Your task to perform on an android device: Open Google Chrome Image 0: 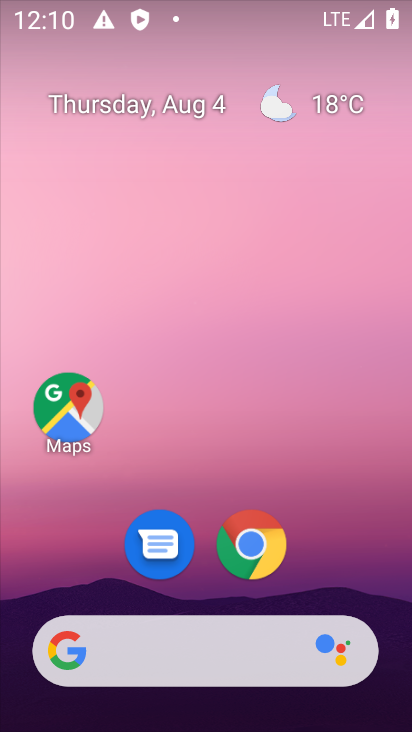
Step 0: click (250, 544)
Your task to perform on an android device: Open Google Chrome Image 1: 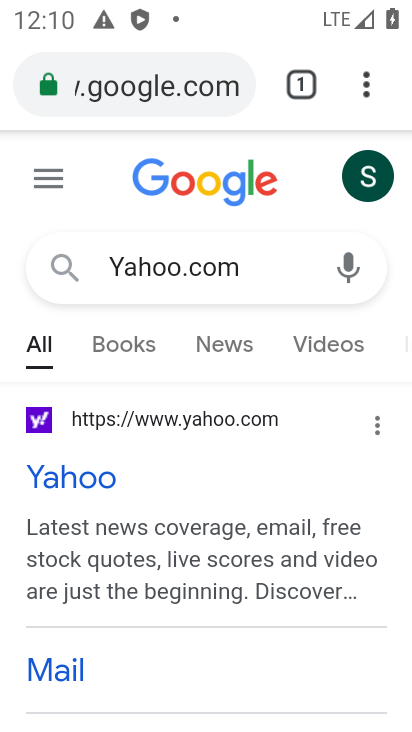
Step 1: task complete